Your task to perform on an android device: open wifi settings Image 0: 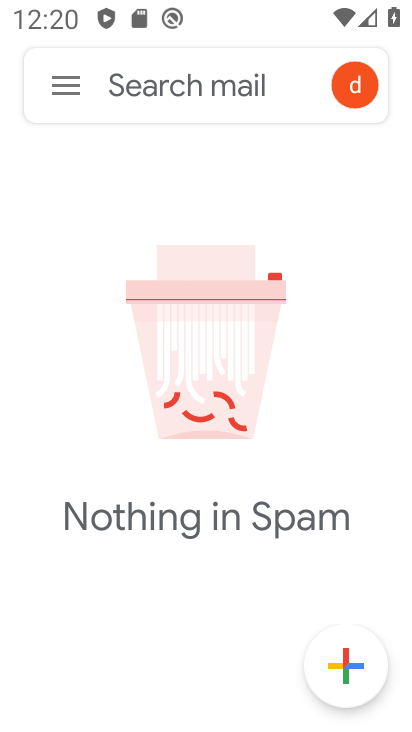
Step 0: drag from (339, 558) to (284, 266)
Your task to perform on an android device: open wifi settings Image 1: 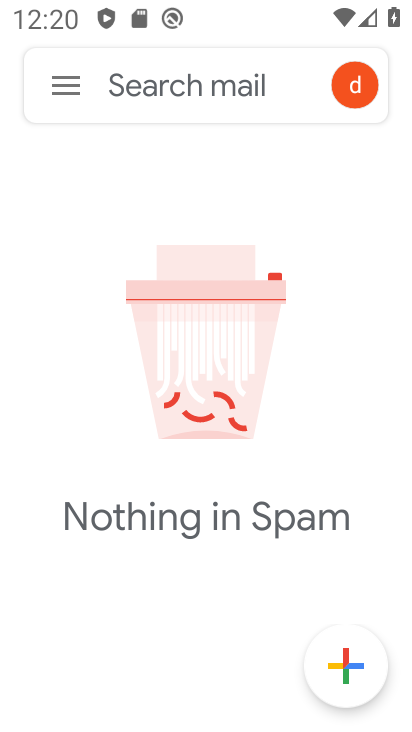
Step 1: press back button
Your task to perform on an android device: open wifi settings Image 2: 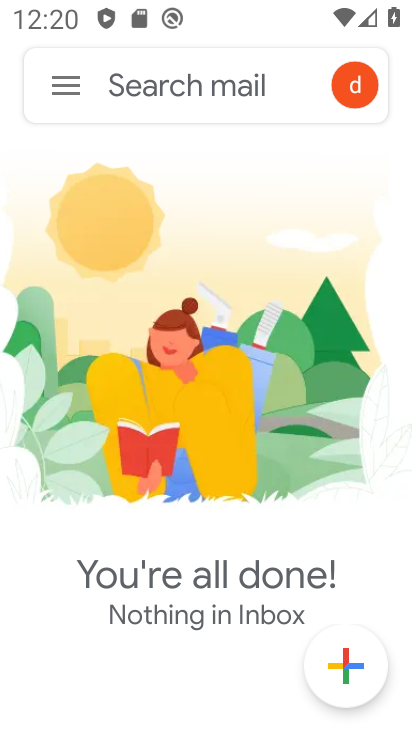
Step 2: press back button
Your task to perform on an android device: open wifi settings Image 3: 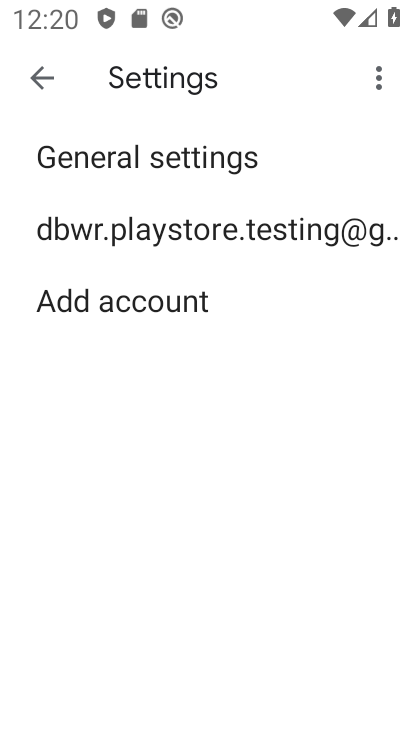
Step 3: press home button
Your task to perform on an android device: open wifi settings Image 4: 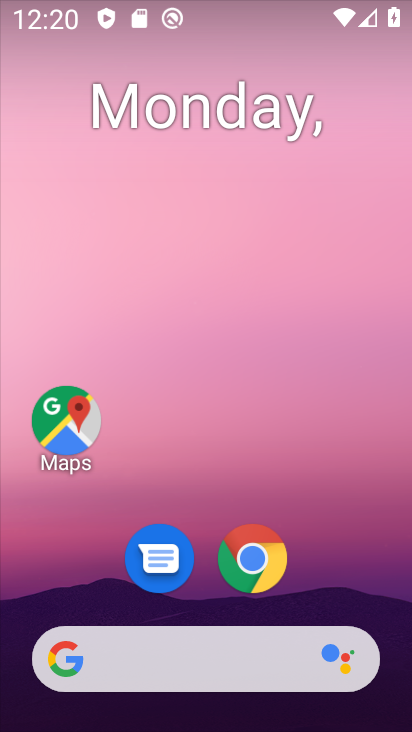
Step 4: drag from (328, 586) to (268, 38)
Your task to perform on an android device: open wifi settings Image 5: 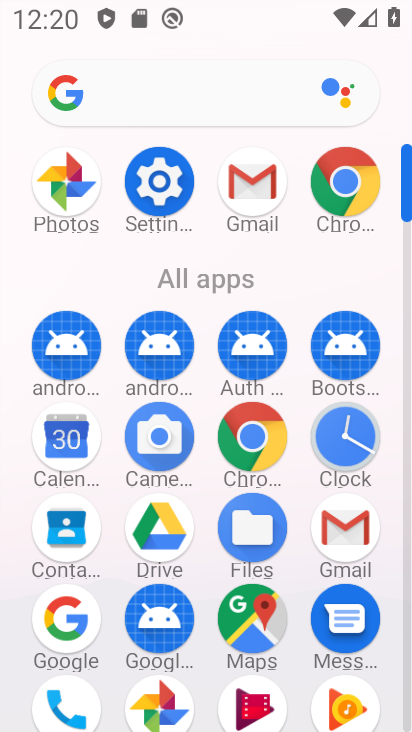
Step 5: click (151, 175)
Your task to perform on an android device: open wifi settings Image 6: 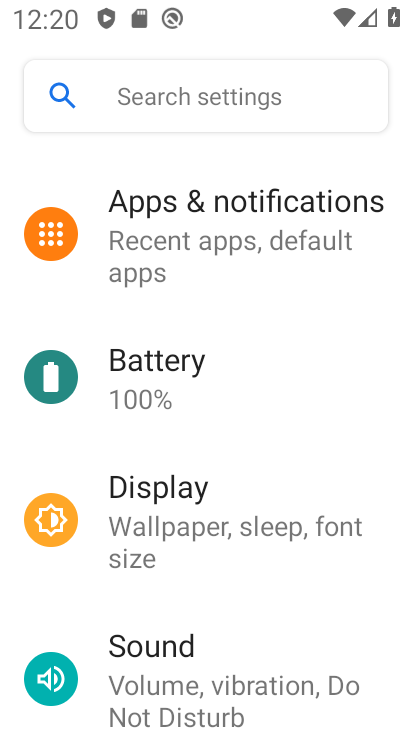
Step 6: drag from (318, 226) to (345, 595)
Your task to perform on an android device: open wifi settings Image 7: 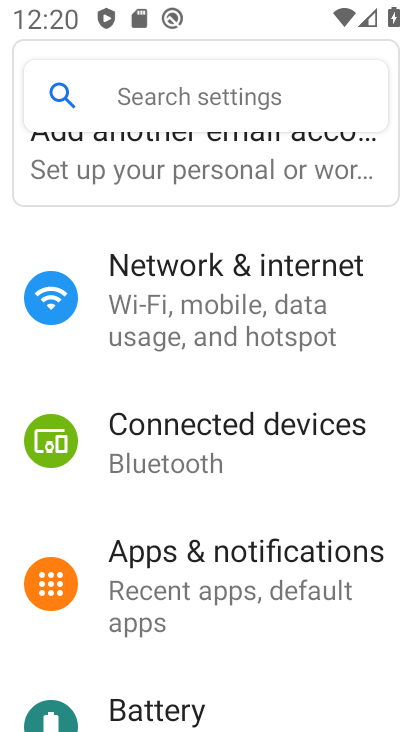
Step 7: click (225, 330)
Your task to perform on an android device: open wifi settings Image 8: 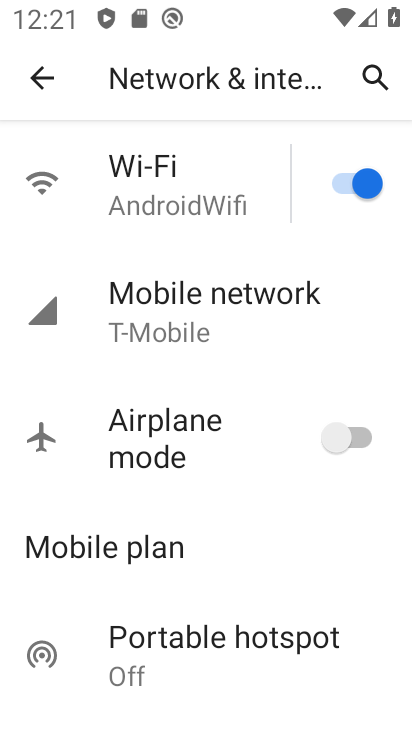
Step 8: click (170, 182)
Your task to perform on an android device: open wifi settings Image 9: 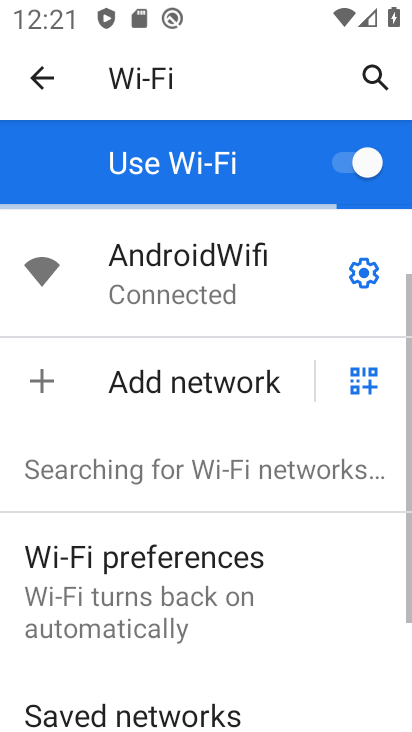
Step 9: task complete